Your task to perform on an android device: set the stopwatch Image 0: 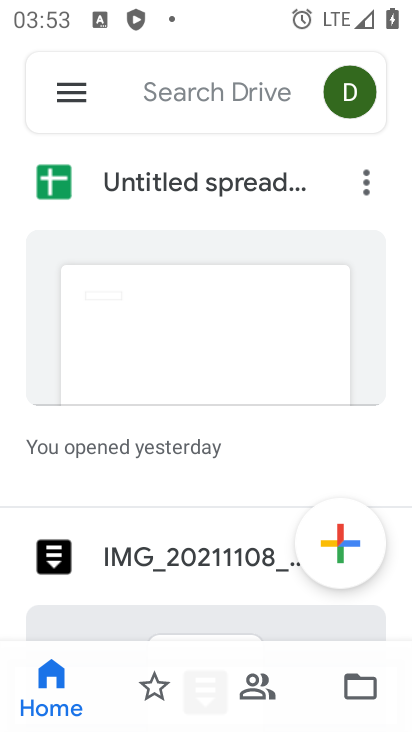
Step 0: press home button
Your task to perform on an android device: set the stopwatch Image 1: 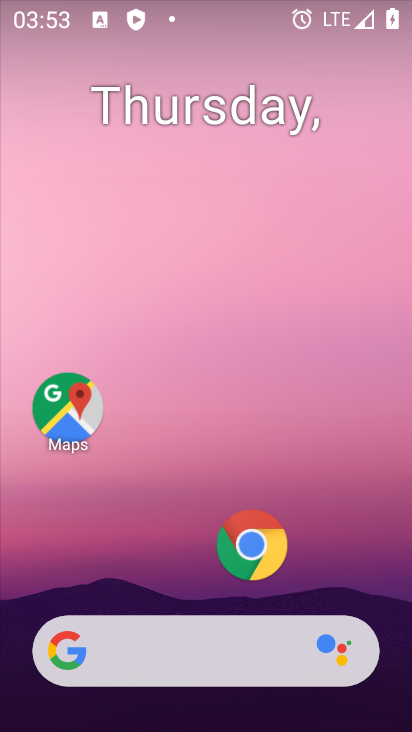
Step 1: drag from (328, 564) to (342, 75)
Your task to perform on an android device: set the stopwatch Image 2: 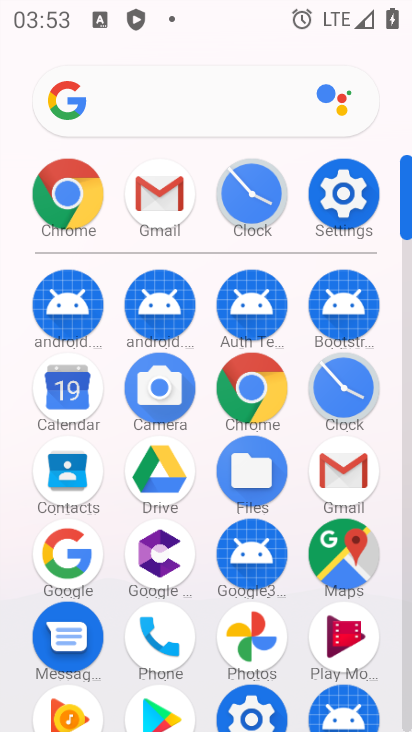
Step 2: click (339, 403)
Your task to perform on an android device: set the stopwatch Image 3: 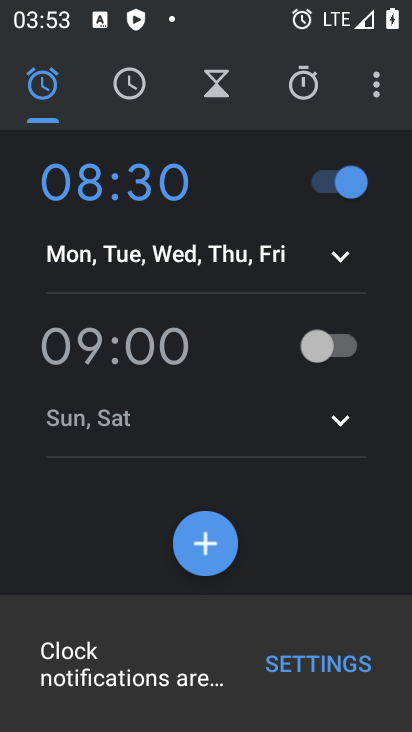
Step 3: click (302, 76)
Your task to perform on an android device: set the stopwatch Image 4: 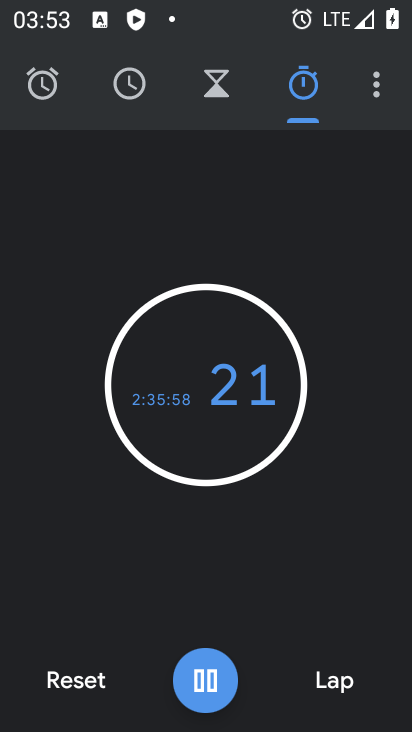
Step 4: task complete